Your task to perform on an android device: Go to battery settings Image 0: 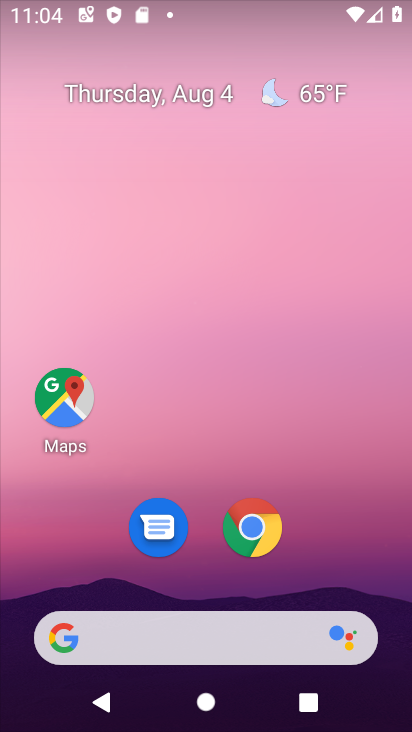
Step 0: drag from (133, 684) to (229, 120)
Your task to perform on an android device: Go to battery settings Image 1: 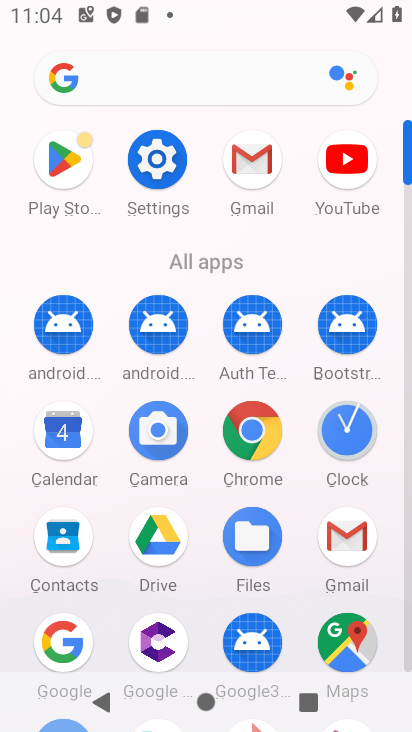
Step 1: click (155, 180)
Your task to perform on an android device: Go to battery settings Image 2: 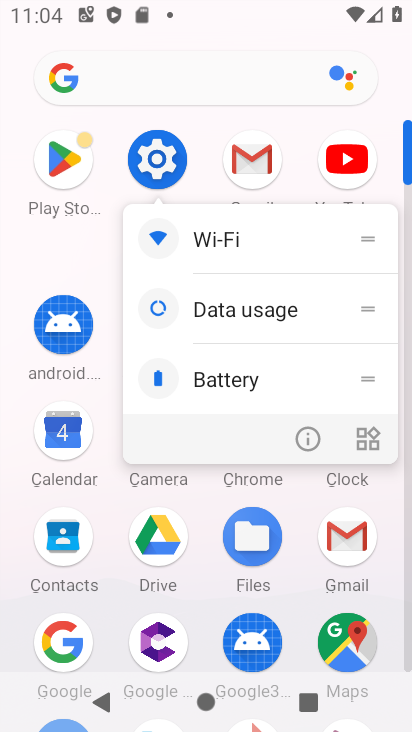
Step 2: click (155, 180)
Your task to perform on an android device: Go to battery settings Image 3: 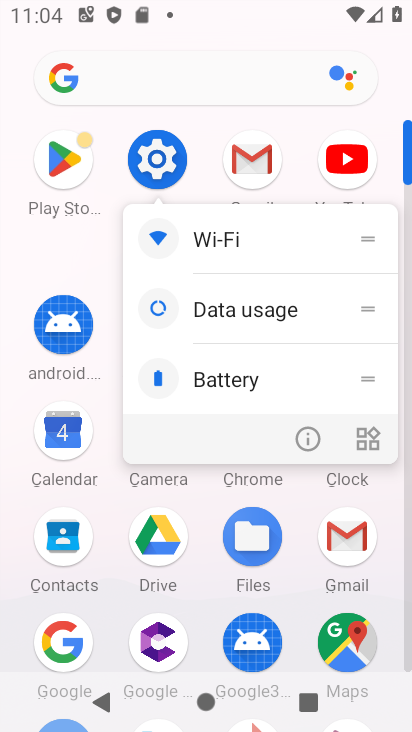
Step 3: click (155, 180)
Your task to perform on an android device: Go to battery settings Image 4: 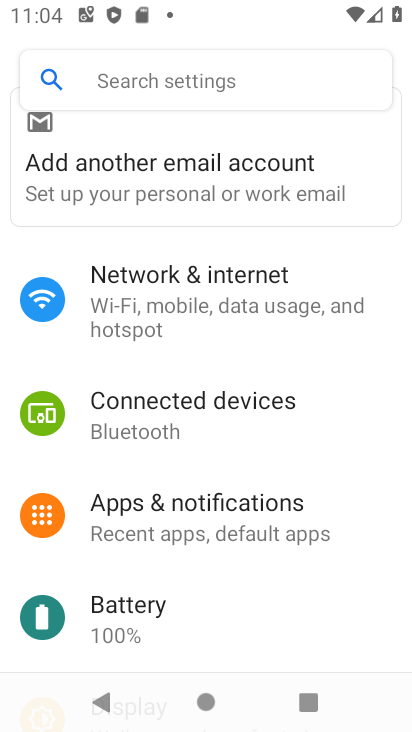
Step 4: click (193, 607)
Your task to perform on an android device: Go to battery settings Image 5: 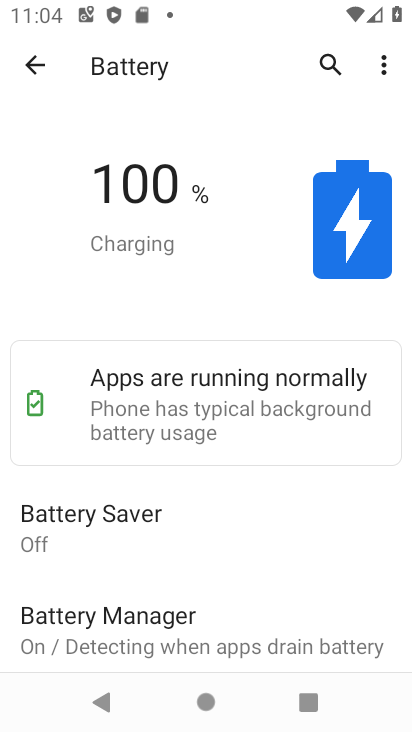
Step 5: task complete